Your task to perform on an android device: Open calendar and show me the third week of next month Image 0: 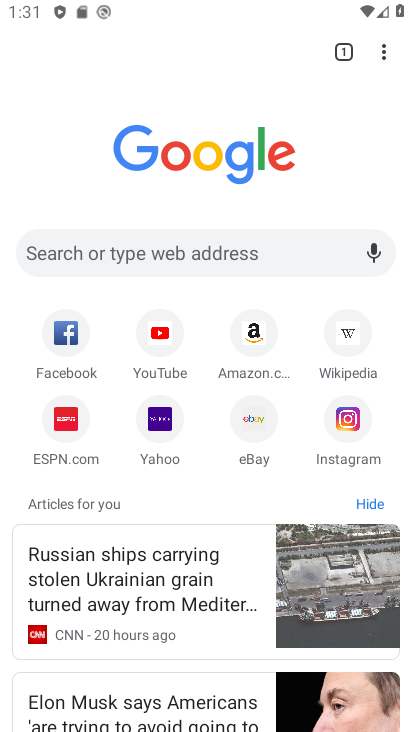
Step 0: press home button
Your task to perform on an android device: Open calendar and show me the third week of next month Image 1: 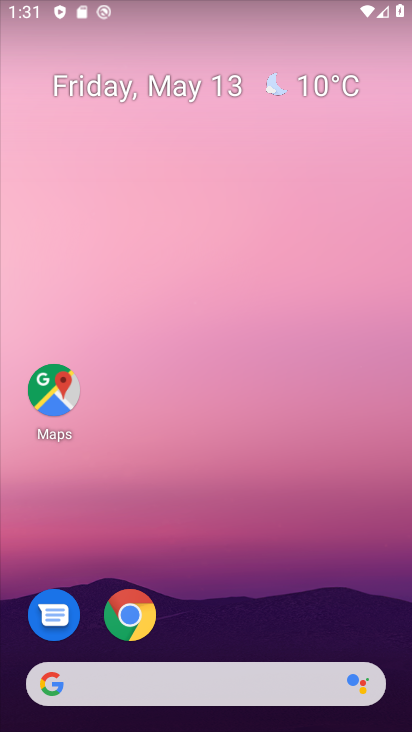
Step 1: drag from (195, 519) to (91, 104)
Your task to perform on an android device: Open calendar and show me the third week of next month Image 2: 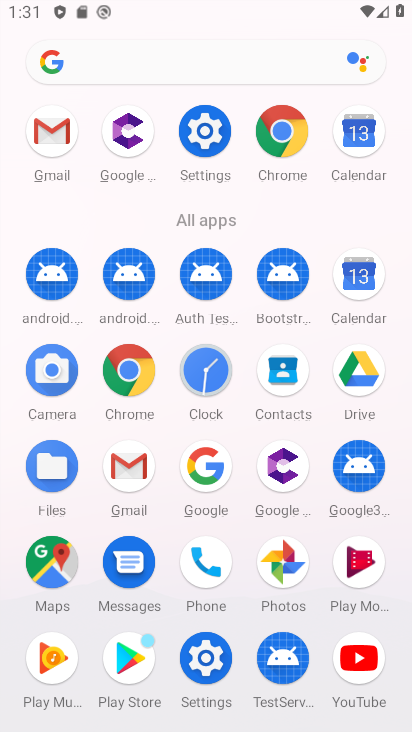
Step 2: click (359, 284)
Your task to perform on an android device: Open calendar and show me the third week of next month Image 3: 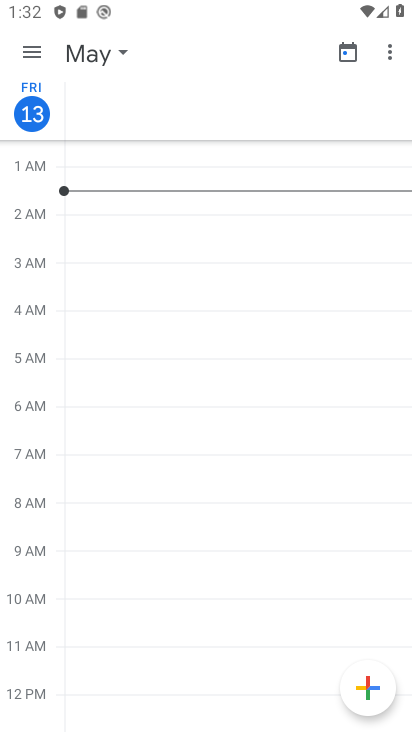
Step 3: click (102, 61)
Your task to perform on an android device: Open calendar and show me the third week of next month Image 4: 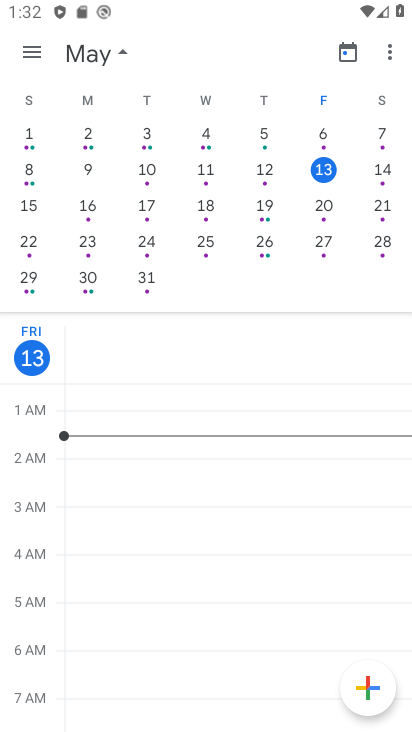
Step 4: drag from (395, 209) to (0, 214)
Your task to perform on an android device: Open calendar and show me the third week of next month Image 5: 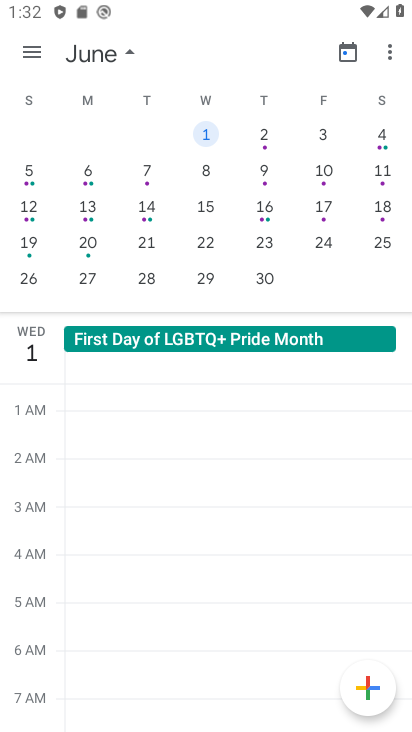
Step 5: click (30, 206)
Your task to perform on an android device: Open calendar and show me the third week of next month Image 6: 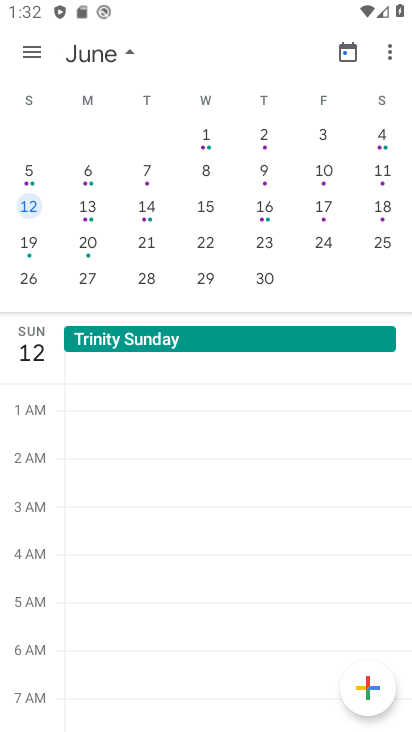
Step 6: click (30, 53)
Your task to perform on an android device: Open calendar and show me the third week of next month Image 7: 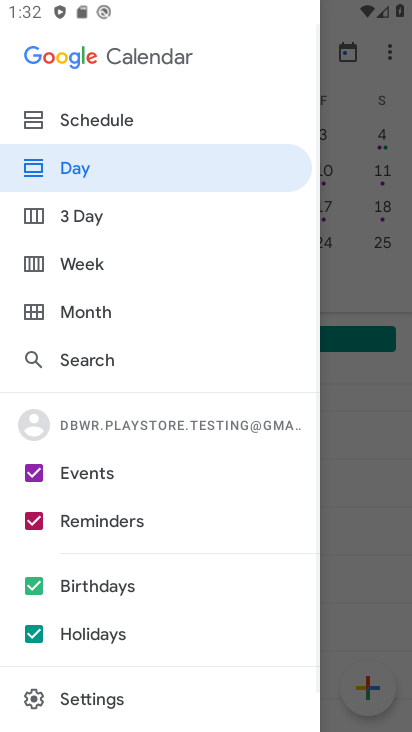
Step 7: click (71, 263)
Your task to perform on an android device: Open calendar and show me the third week of next month Image 8: 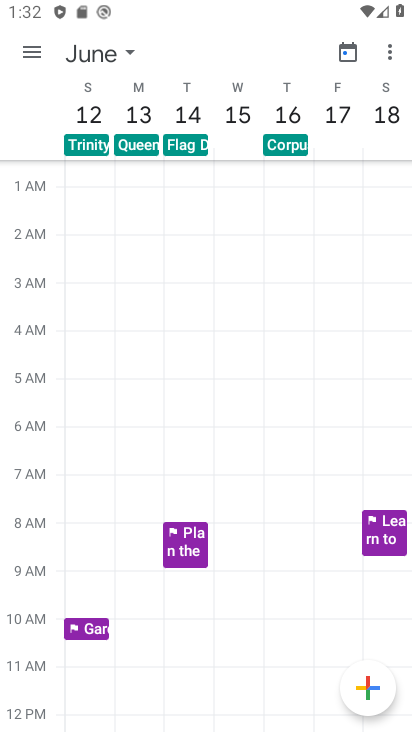
Step 8: task complete